Your task to perform on an android device: Open the calendar and show me this week's events? Image 0: 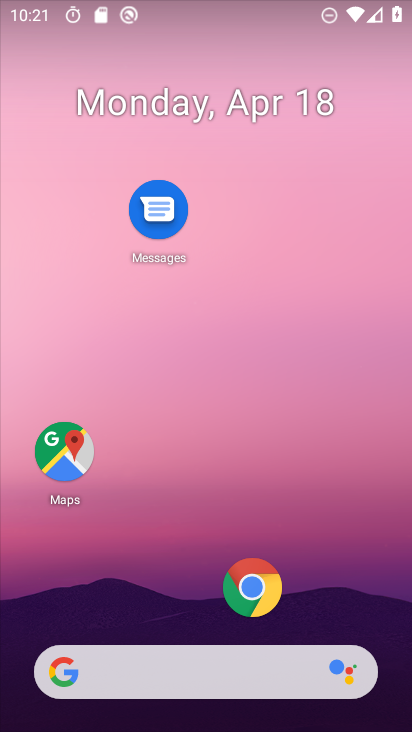
Step 0: drag from (169, 619) to (235, 62)
Your task to perform on an android device: Open the calendar and show me this week's events? Image 1: 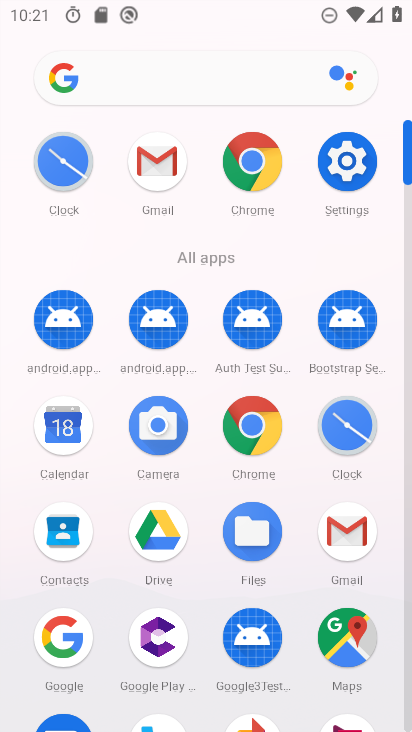
Step 1: click (58, 444)
Your task to perform on an android device: Open the calendar and show me this week's events? Image 2: 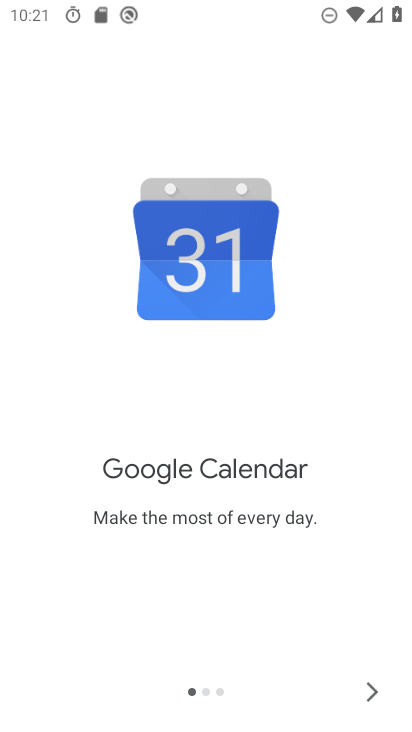
Step 2: click (352, 678)
Your task to perform on an android device: Open the calendar and show me this week's events? Image 3: 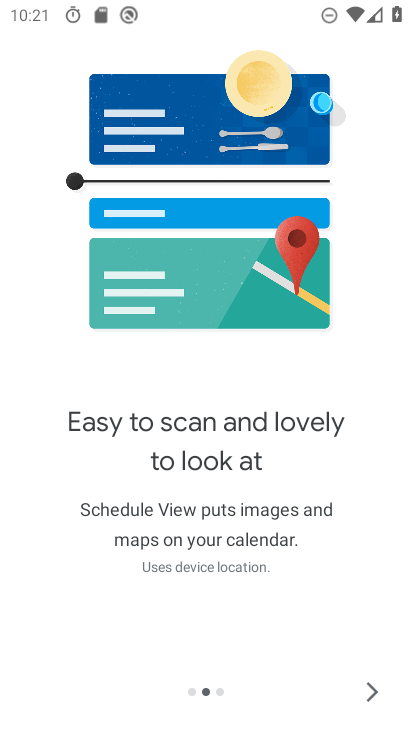
Step 3: click (374, 690)
Your task to perform on an android device: Open the calendar and show me this week's events? Image 4: 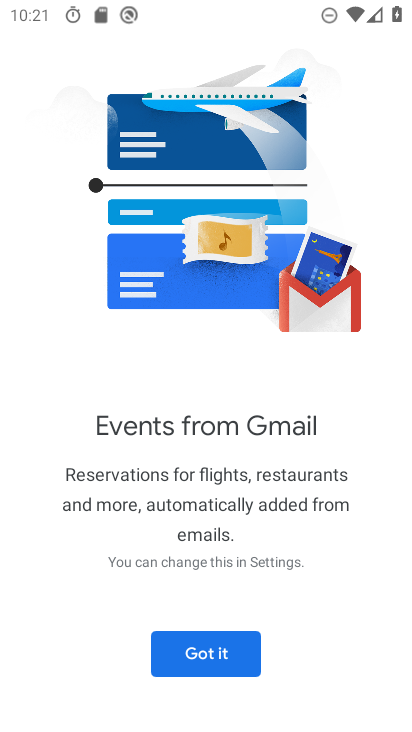
Step 4: click (229, 653)
Your task to perform on an android device: Open the calendar and show me this week's events? Image 5: 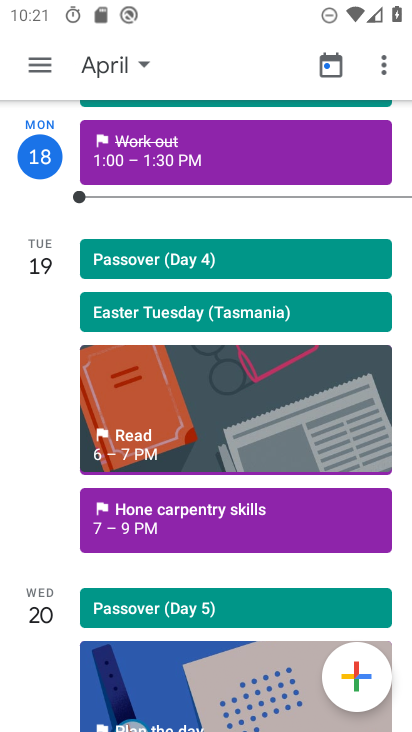
Step 5: click (31, 61)
Your task to perform on an android device: Open the calendar and show me this week's events? Image 6: 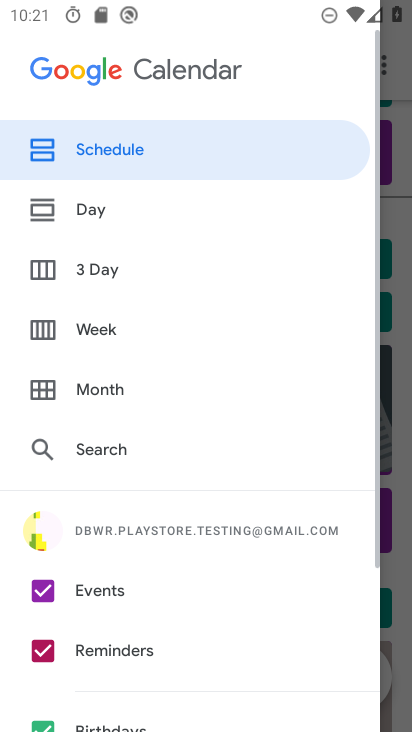
Step 6: drag from (150, 407) to (170, 284)
Your task to perform on an android device: Open the calendar and show me this week's events? Image 7: 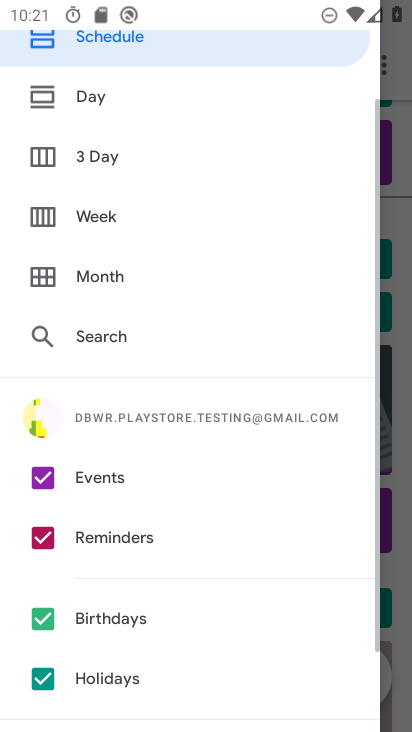
Step 7: click (48, 537)
Your task to perform on an android device: Open the calendar and show me this week's events? Image 8: 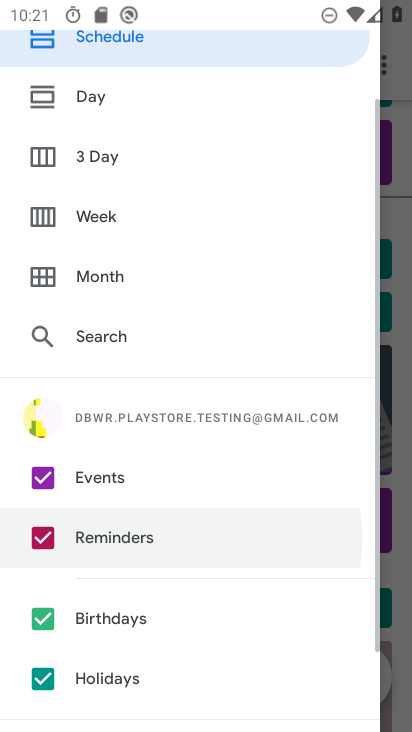
Step 8: click (52, 617)
Your task to perform on an android device: Open the calendar and show me this week's events? Image 9: 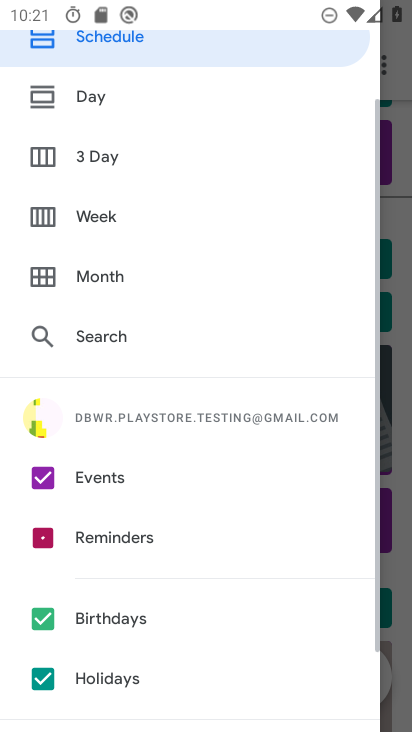
Step 9: click (45, 689)
Your task to perform on an android device: Open the calendar and show me this week's events? Image 10: 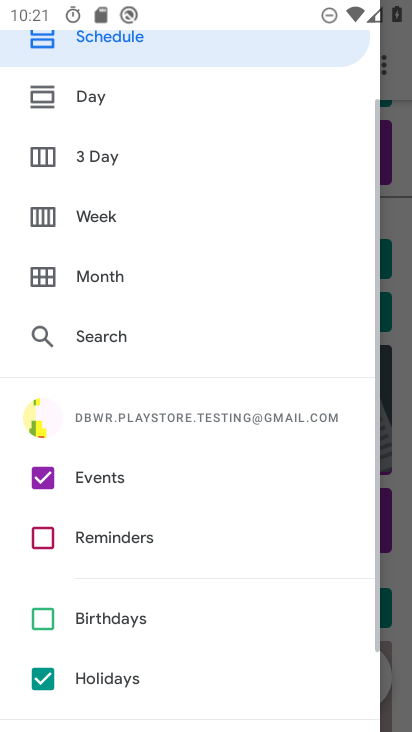
Step 10: click (46, 676)
Your task to perform on an android device: Open the calendar and show me this week's events? Image 11: 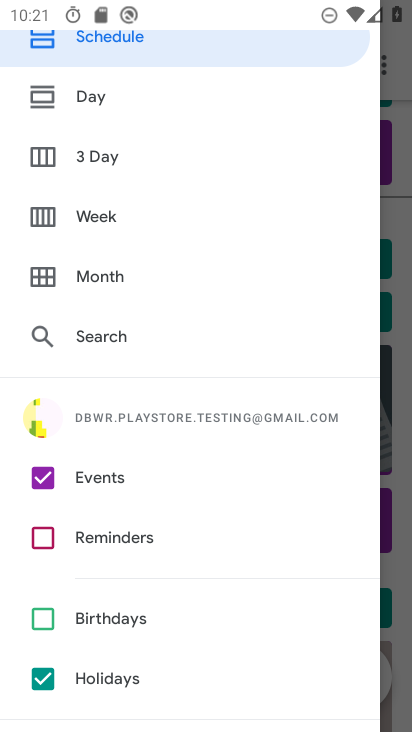
Step 11: click (40, 674)
Your task to perform on an android device: Open the calendar and show me this week's events? Image 12: 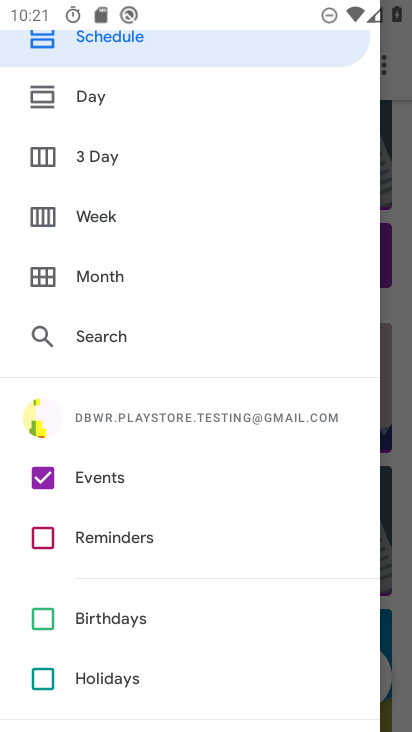
Step 12: click (106, 220)
Your task to perform on an android device: Open the calendar and show me this week's events? Image 13: 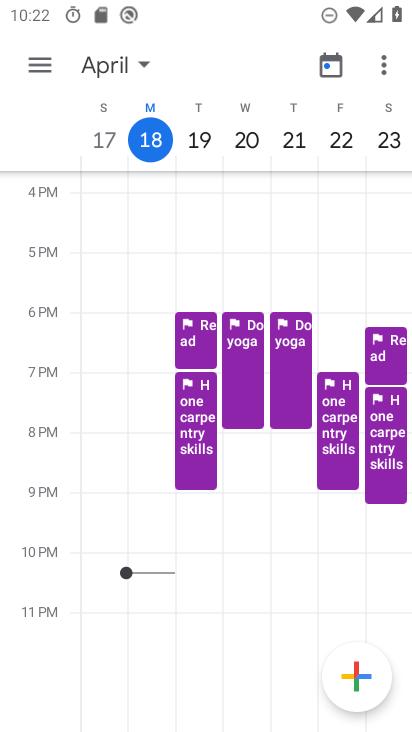
Step 13: task complete